Your task to perform on an android device: Search for seafood restaurants on Google Maps Image 0: 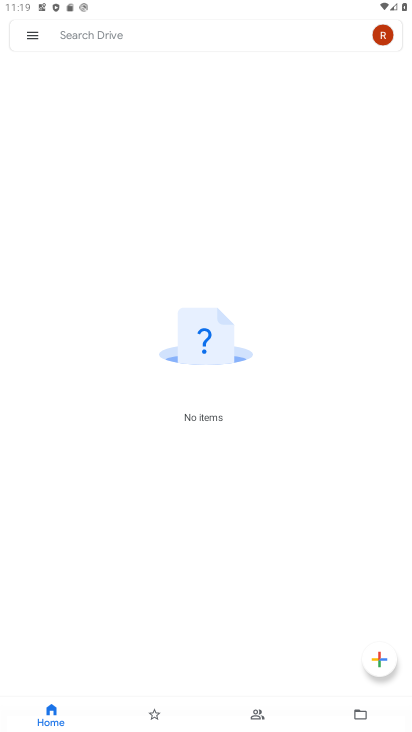
Step 0: press home button
Your task to perform on an android device: Search for seafood restaurants on Google Maps Image 1: 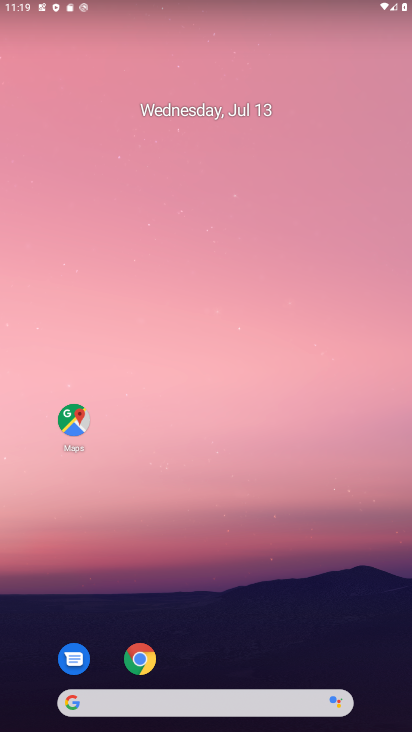
Step 1: drag from (245, 643) to (209, 105)
Your task to perform on an android device: Search for seafood restaurants on Google Maps Image 2: 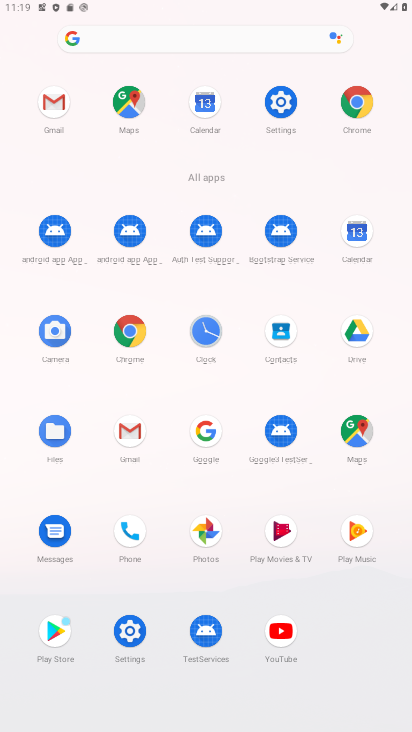
Step 2: click (127, 106)
Your task to perform on an android device: Search for seafood restaurants on Google Maps Image 3: 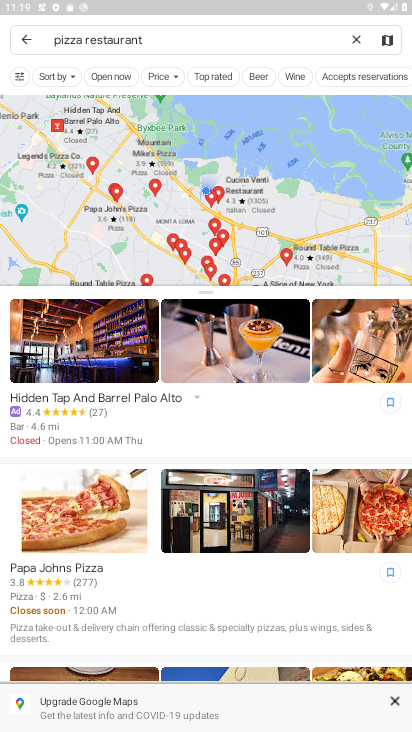
Step 3: click (353, 38)
Your task to perform on an android device: Search for seafood restaurants on Google Maps Image 4: 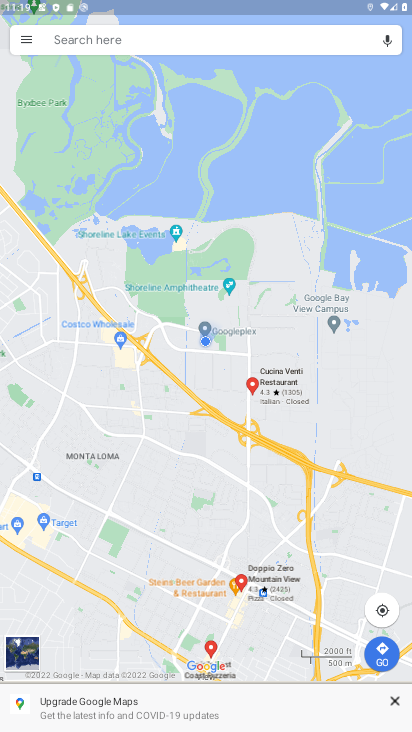
Step 4: click (282, 35)
Your task to perform on an android device: Search for seafood restaurants on Google Maps Image 5: 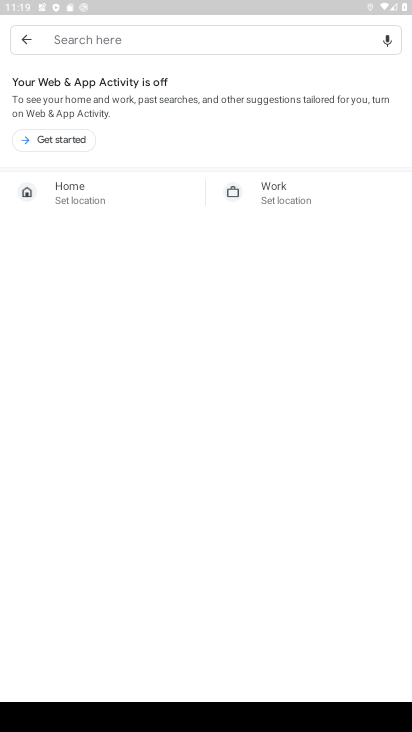
Step 5: click (175, 35)
Your task to perform on an android device: Search for seafood restaurants on Google Maps Image 6: 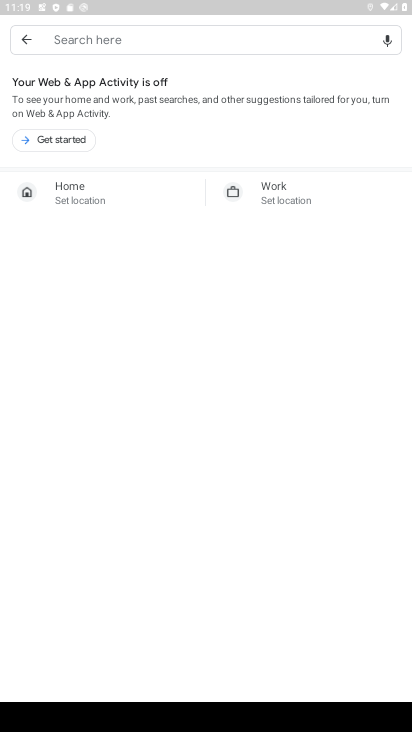
Step 6: type "seafood restaurants"
Your task to perform on an android device: Search for seafood restaurants on Google Maps Image 7: 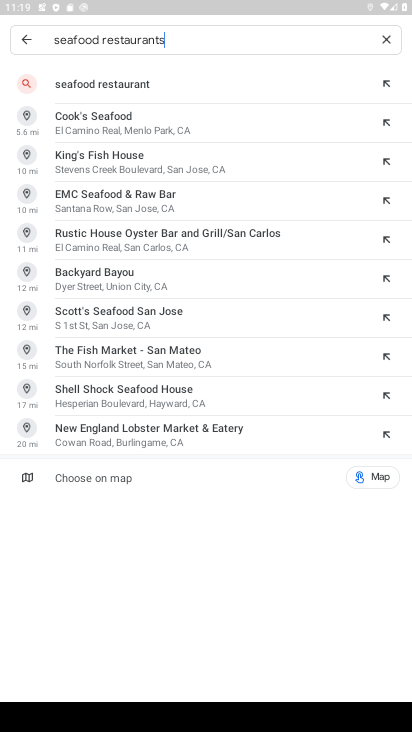
Step 7: click (255, 73)
Your task to perform on an android device: Search for seafood restaurants on Google Maps Image 8: 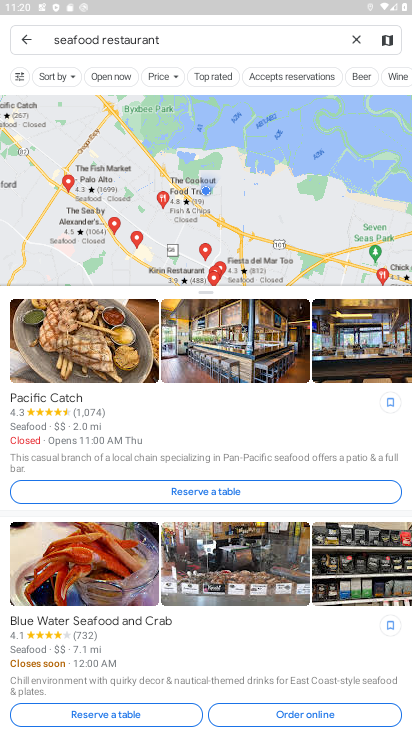
Step 8: task complete